Your task to perform on an android device: Go to eBay Image 0: 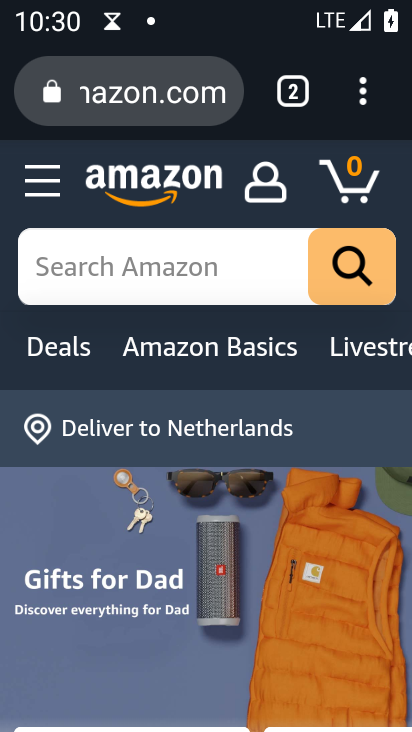
Step 0: click (141, 87)
Your task to perform on an android device: Go to eBay Image 1: 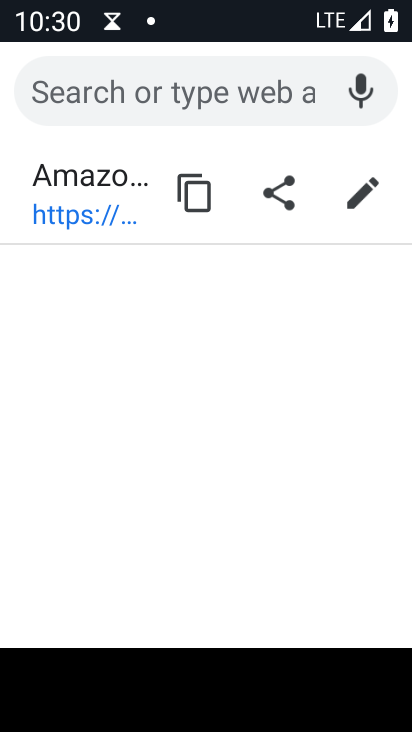
Step 1: type "www.ebay.com"
Your task to perform on an android device: Go to eBay Image 2: 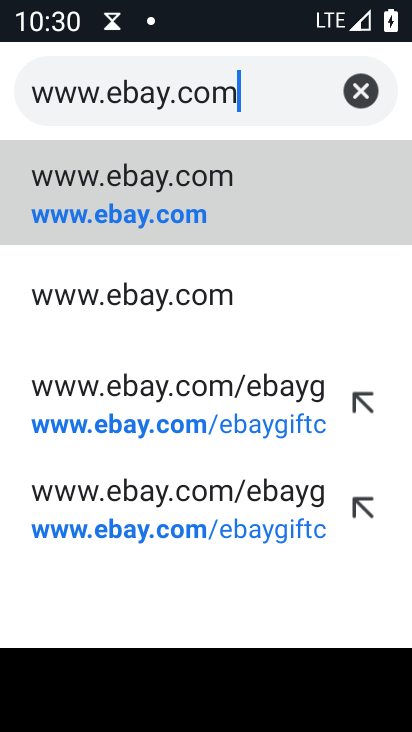
Step 2: click (145, 219)
Your task to perform on an android device: Go to eBay Image 3: 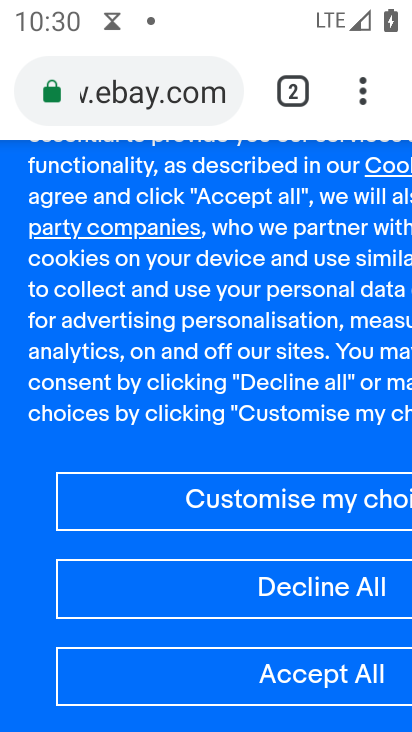
Step 3: task complete